Your task to perform on an android device: check out phone information Image 0: 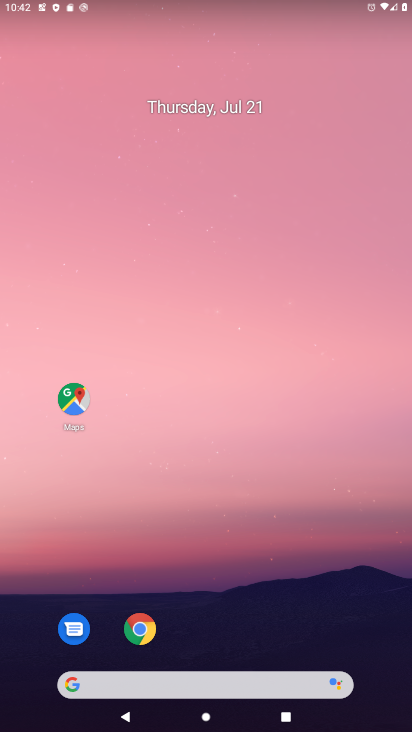
Step 0: drag from (353, 616) to (373, 202)
Your task to perform on an android device: check out phone information Image 1: 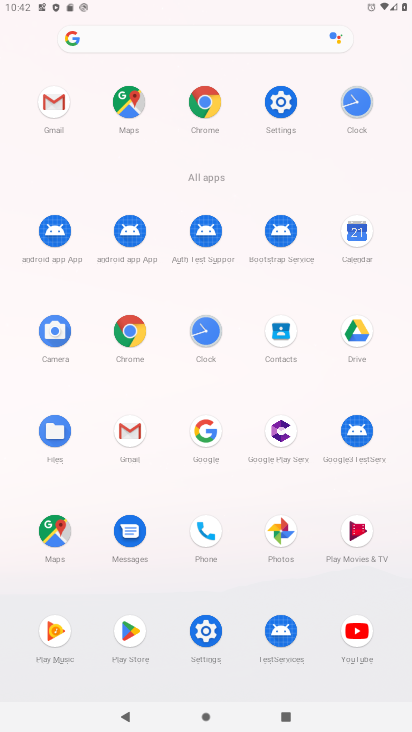
Step 1: click (205, 526)
Your task to perform on an android device: check out phone information Image 2: 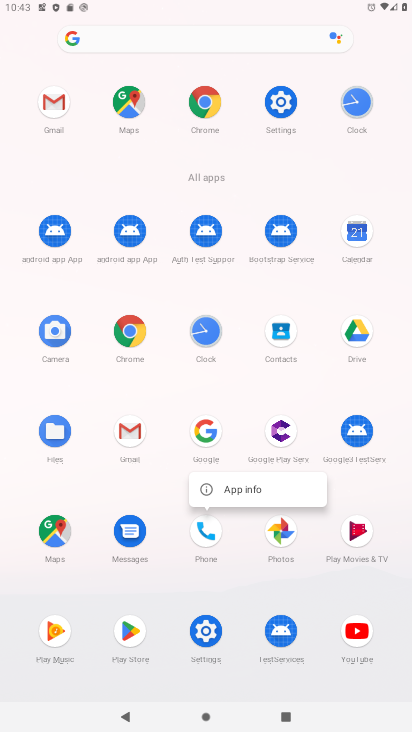
Step 2: click (245, 487)
Your task to perform on an android device: check out phone information Image 3: 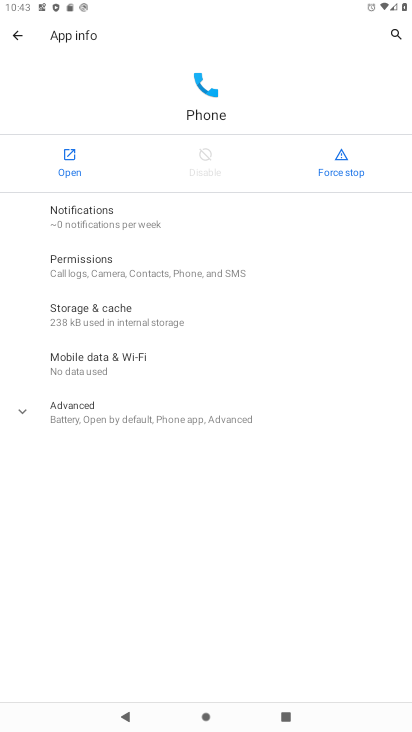
Step 3: click (138, 419)
Your task to perform on an android device: check out phone information Image 4: 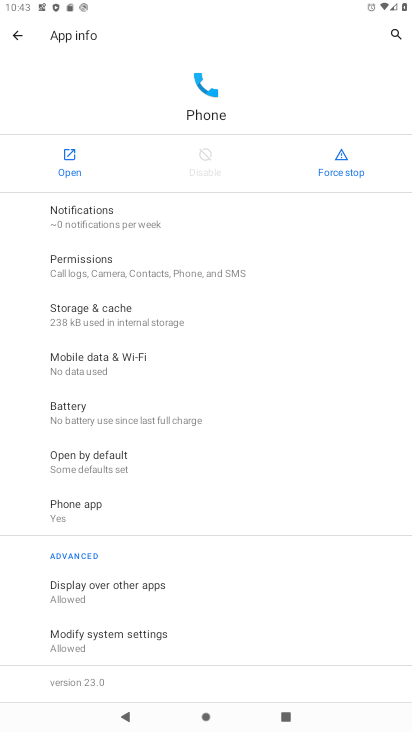
Step 4: task complete